Your task to perform on an android device: remove spam from my inbox in the gmail app Image 0: 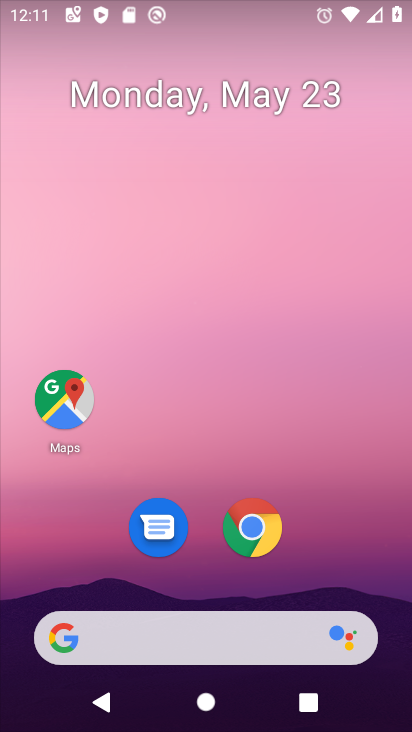
Step 0: drag from (323, 581) to (164, 7)
Your task to perform on an android device: remove spam from my inbox in the gmail app Image 1: 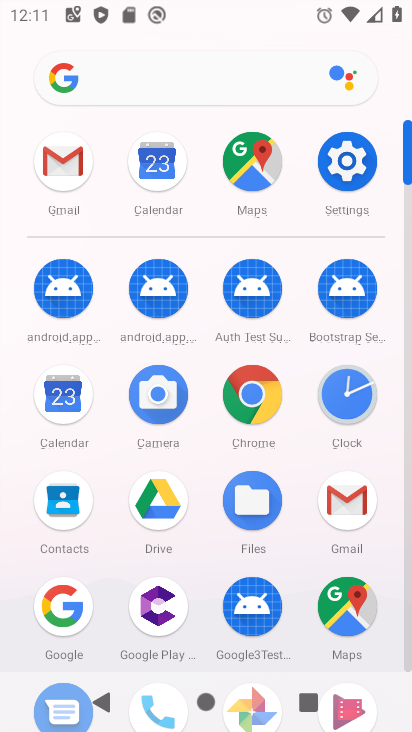
Step 1: click (75, 150)
Your task to perform on an android device: remove spam from my inbox in the gmail app Image 2: 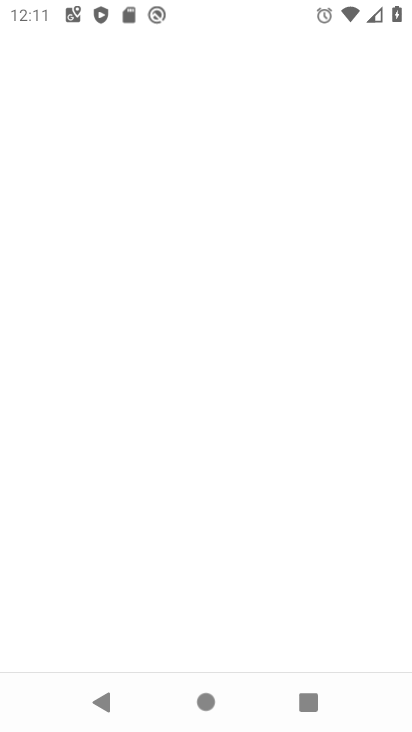
Step 2: task complete